Your task to perform on an android device: Go to CNN.com Image 0: 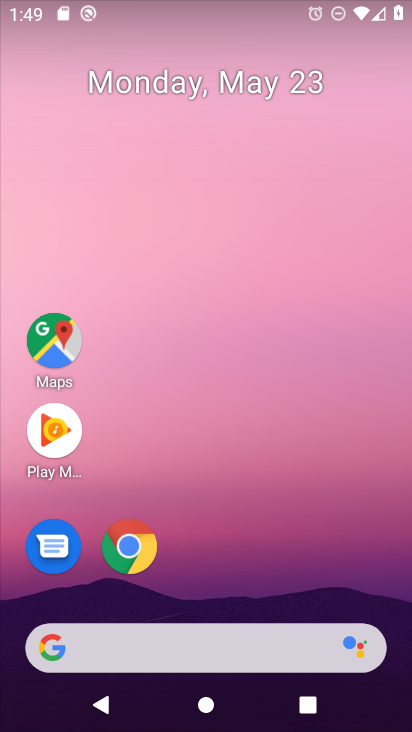
Step 0: click (150, 552)
Your task to perform on an android device: Go to CNN.com Image 1: 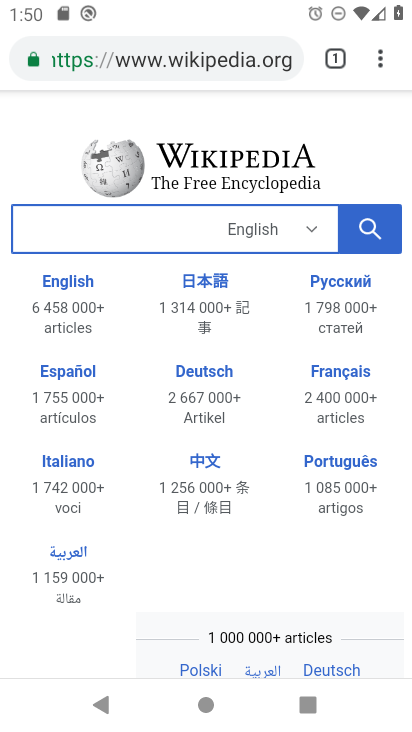
Step 1: click (194, 62)
Your task to perform on an android device: Go to CNN.com Image 2: 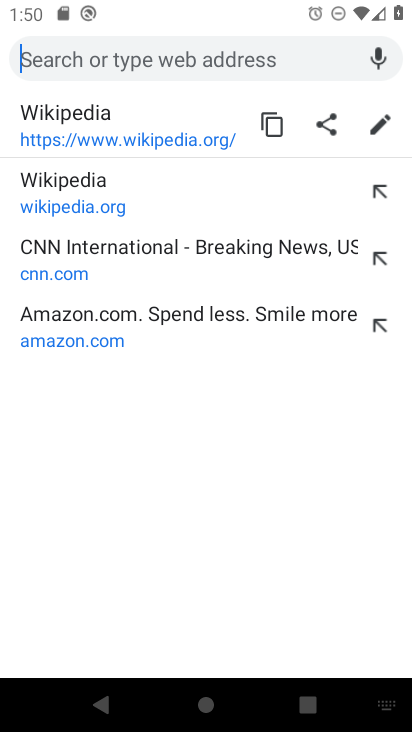
Step 2: click (118, 256)
Your task to perform on an android device: Go to CNN.com Image 3: 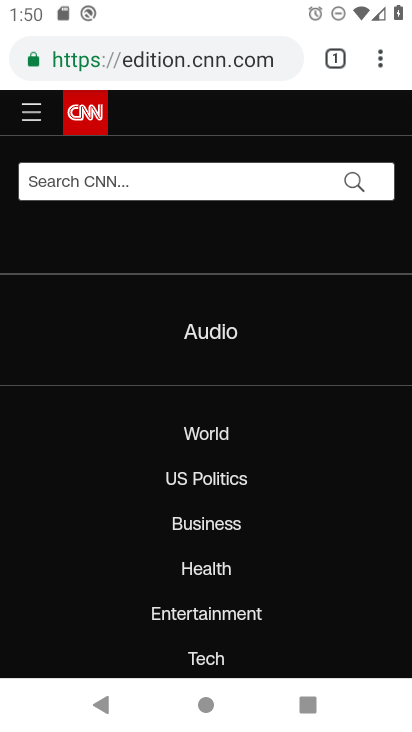
Step 3: task complete